Your task to perform on an android device: open chrome privacy settings Image 0: 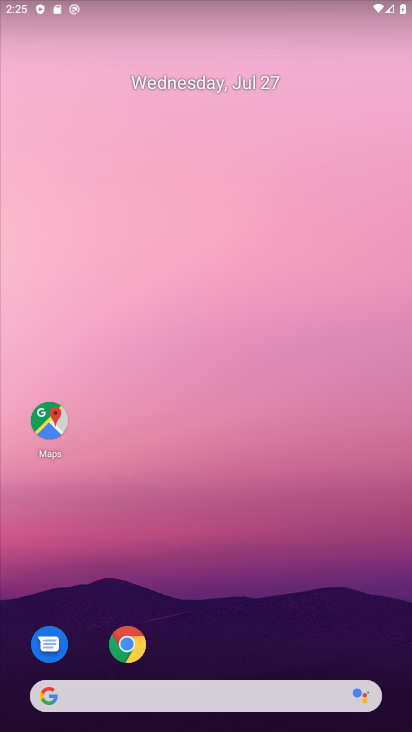
Step 0: click (132, 646)
Your task to perform on an android device: open chrome privacy settings Image 1: 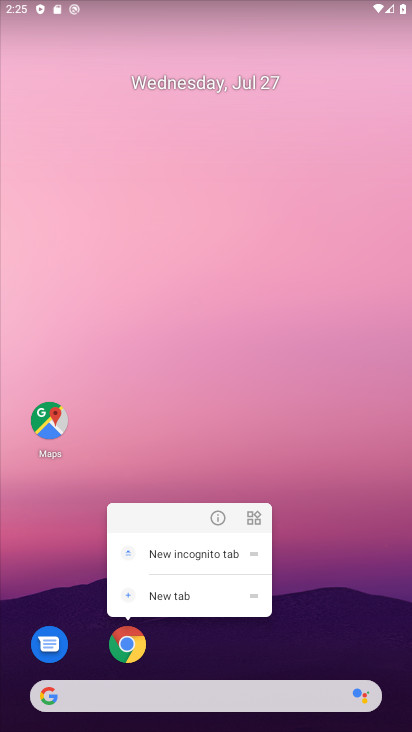
Step 1: click (136, 648)
Your task to perform on an android device: open chrome privacy settings Image 2: 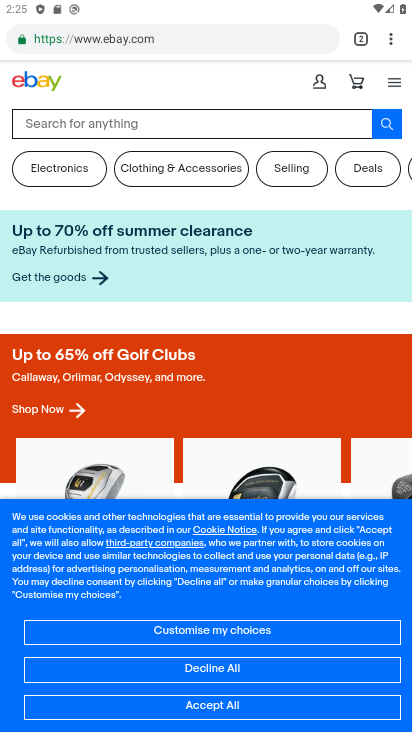
Step 2: click (388, 44)
Your task to perform on an android device: open chrome privacy settings Image 3: 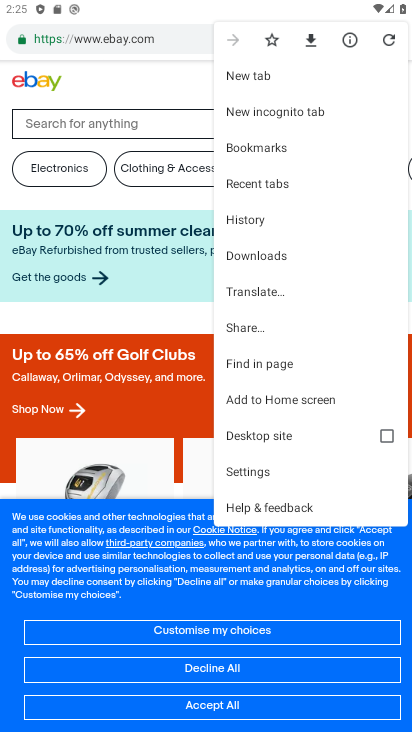
Step 3: click (252, 476)
Your task to perform on an android device: open chrome privacy settings Image 4: 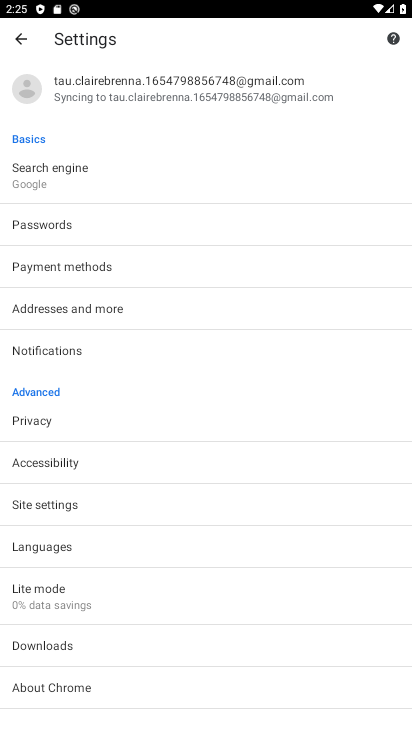
Step 4: click (47, 422)
Your task to perform on an android device: open chrome privacy settings Image 5: 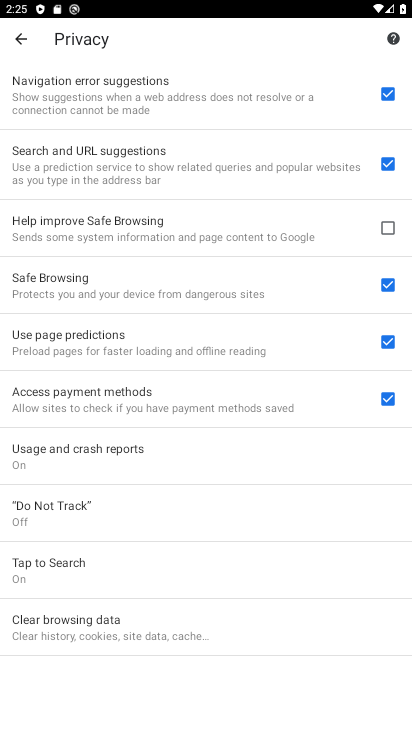
Step 5: task complete